Your task to perform on an android device: Empty the shopping cart on amazon.com. Search for "razer blade" on amazon.com, select the first entry, add it to the cart, then select checkout. Image 0: 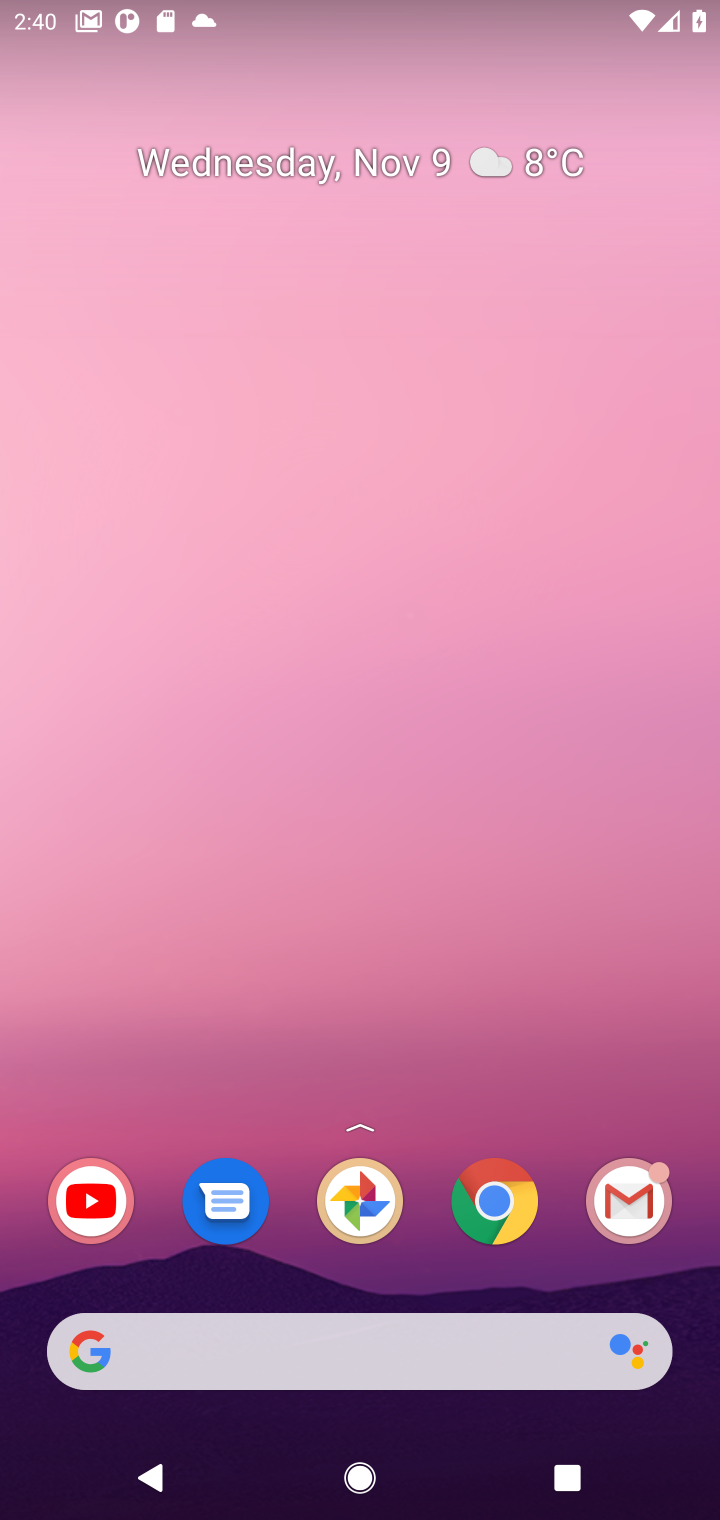
Step 0: click (312, 1344)
Your task to perform on an android device: Empty the shopping cart on amazon.com. Search for "razer blade" on amazon.com, select the first entry, add it to the cart, then select checkout. Image 1: 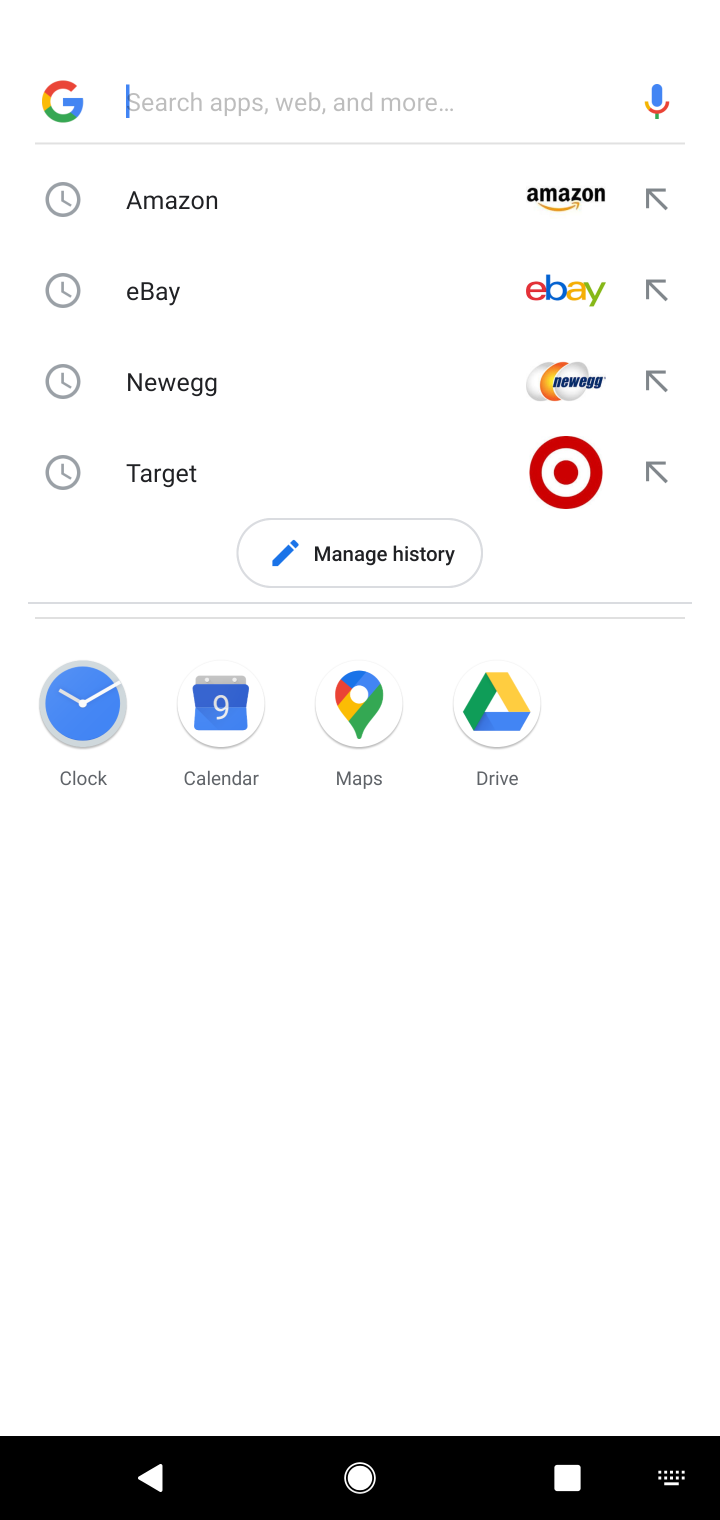
Step 1: type "amazon.com"
Your task to perform on an android device: Empty the shopping cart on amazon.com. Search for "razer blade" on amazon.com, select the first entry, add it to the cart, then select checkout. Image 2: 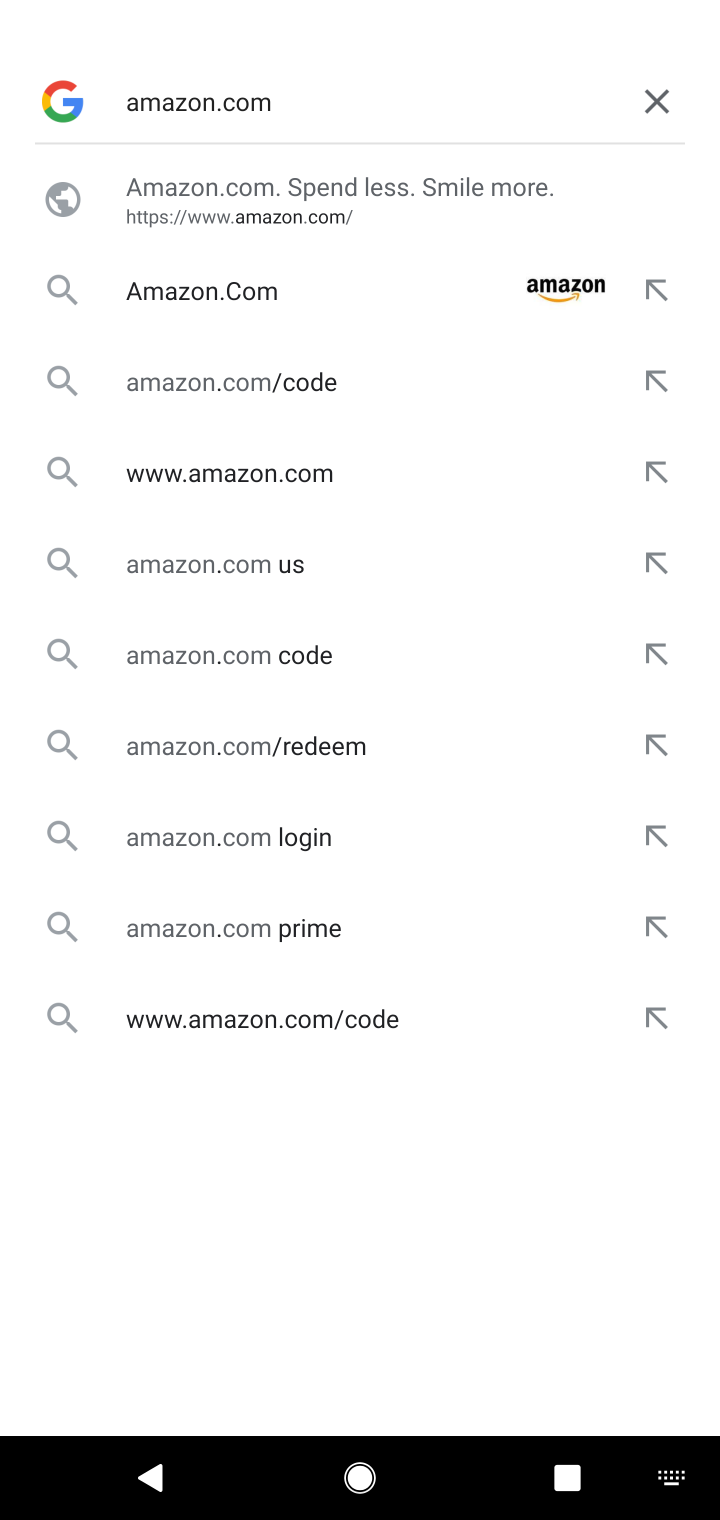
Step 2: click (316, 297)
Your task to perform on an android device: Empty the shopping cart on amazon.com. Search for "razer blade" on amazon.com, select the first entry, add it to the cart, then select checkout. Image 3: 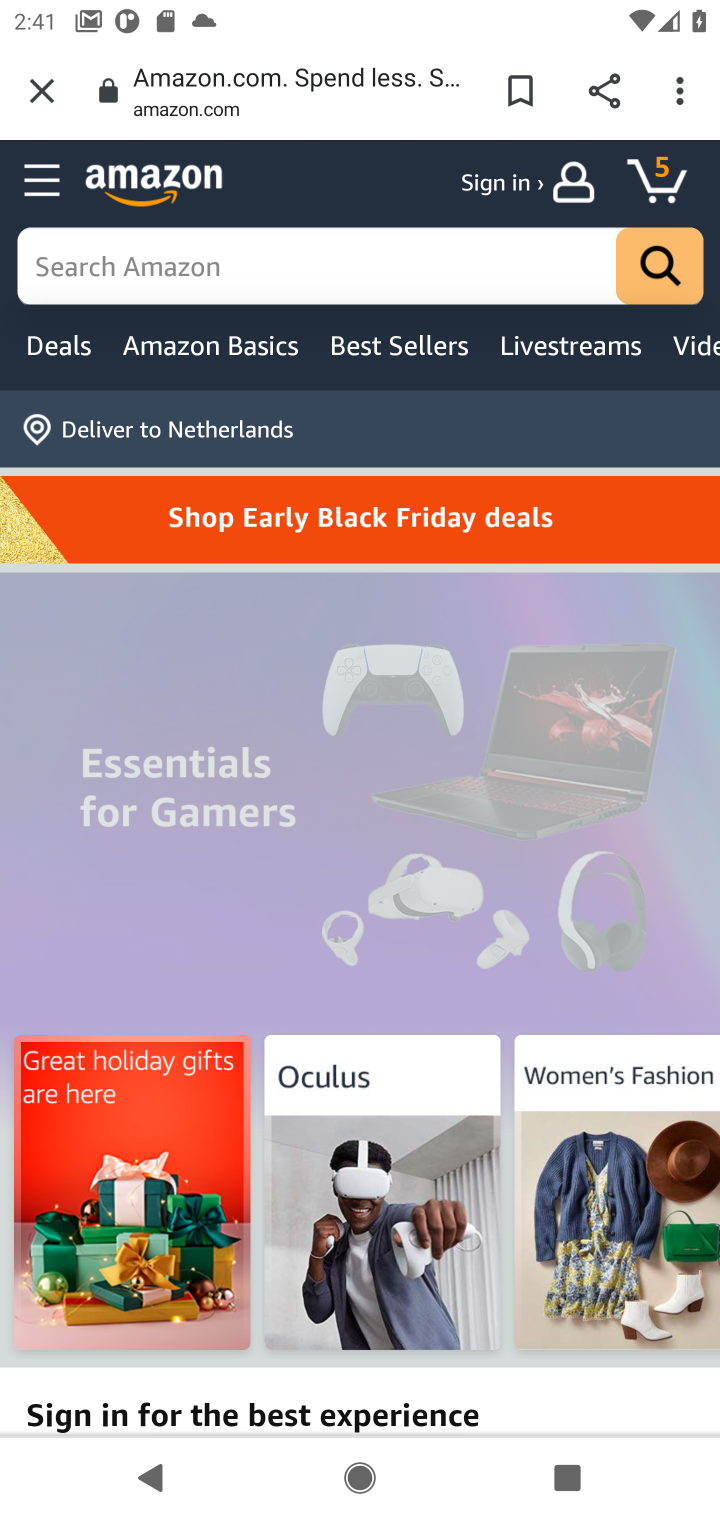
Step 3: click (248, 269)
Your task to perform on an android device: Empty the shopping cart on amazon.com. Search for "razer blade" on amazon.com, select the first entry, add it to the cart, then select checkout. Image 4: 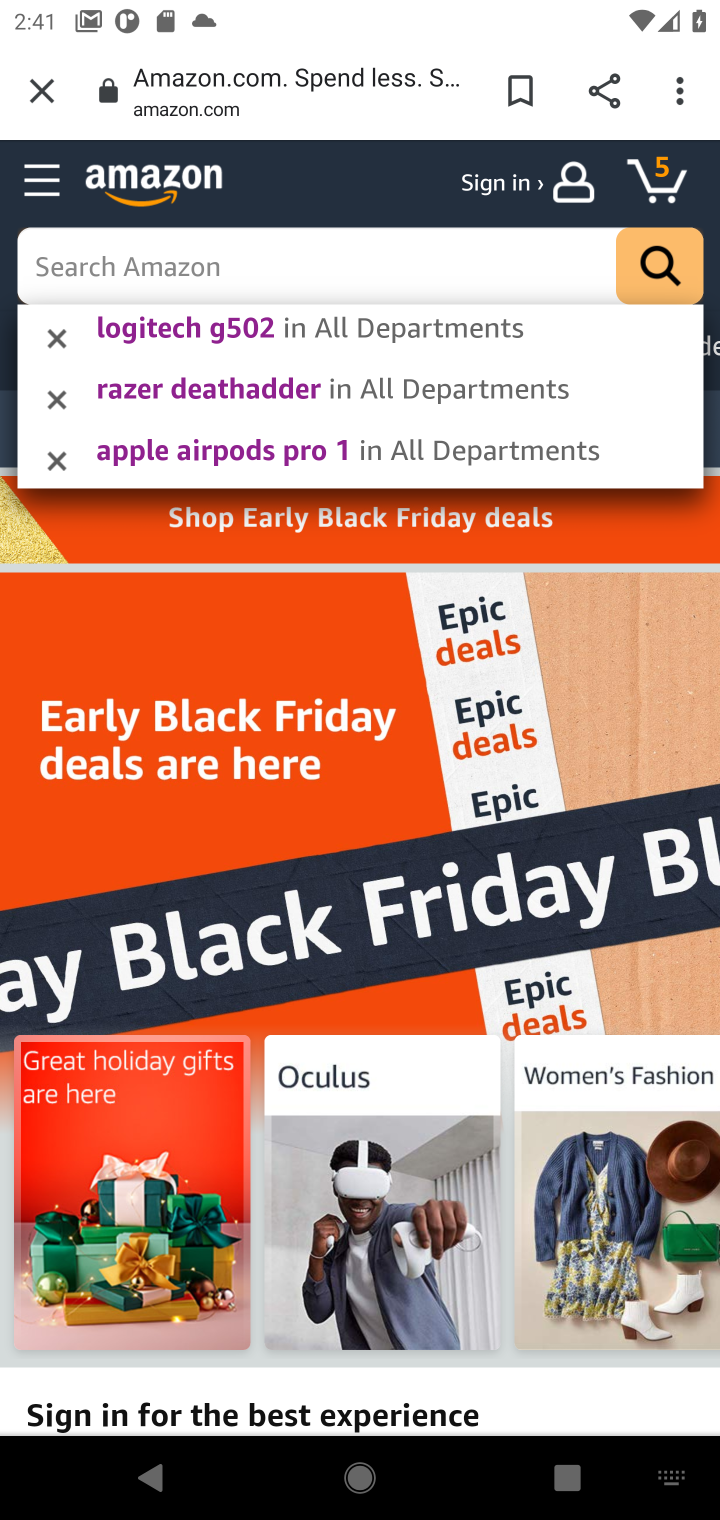
Step 4: type "razer blade"
Your task to perform on an android device: Empty the shopping cart on amazon.com. Search for "razer blade" on amazon.com, select the first entry, add it to the cart, then select checkout. Image 5: 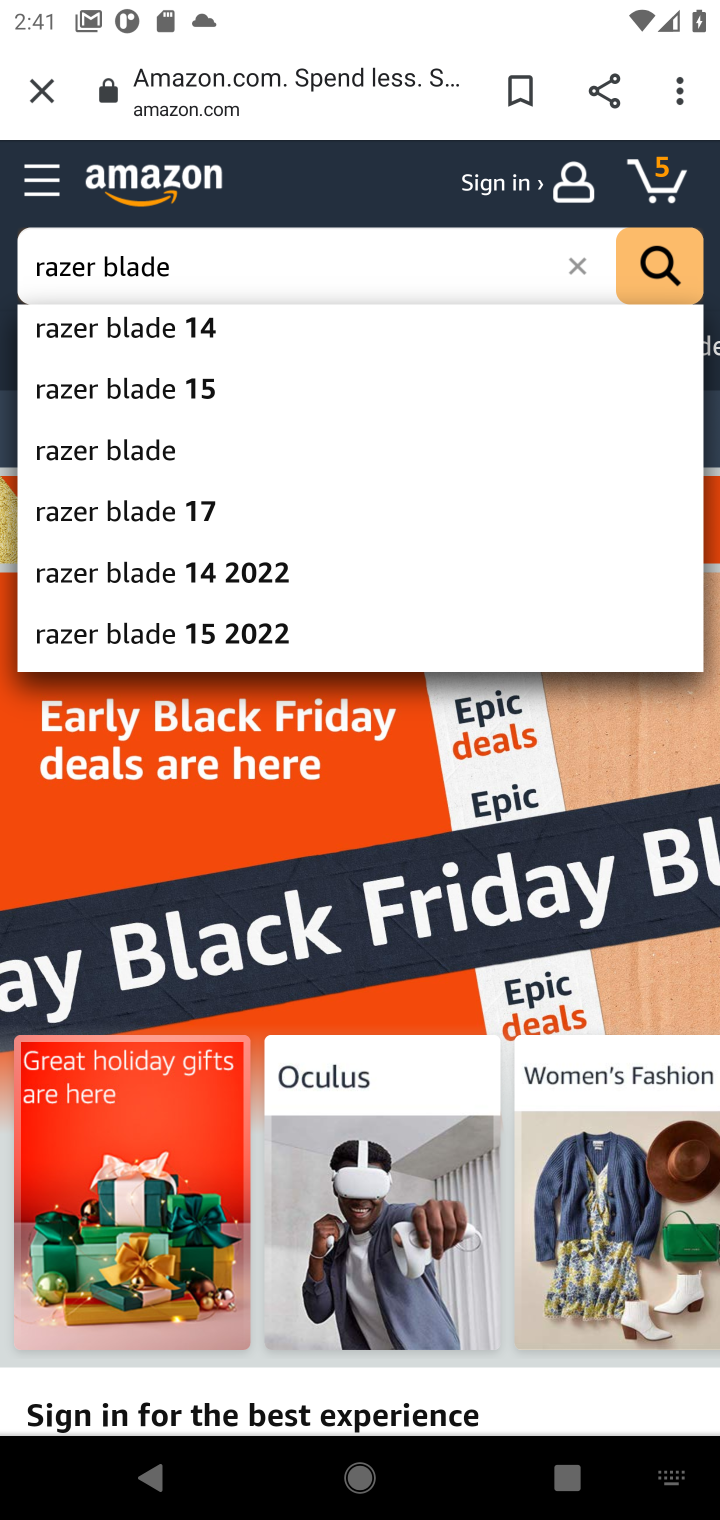
Step 5: click (114, 445)
Your task to perform on an android device: Empty the shopping cart on amazon.com. Search for "razer blade" on amazon.com, select the first entry, add it to the cart, then select checkout. Image 6: 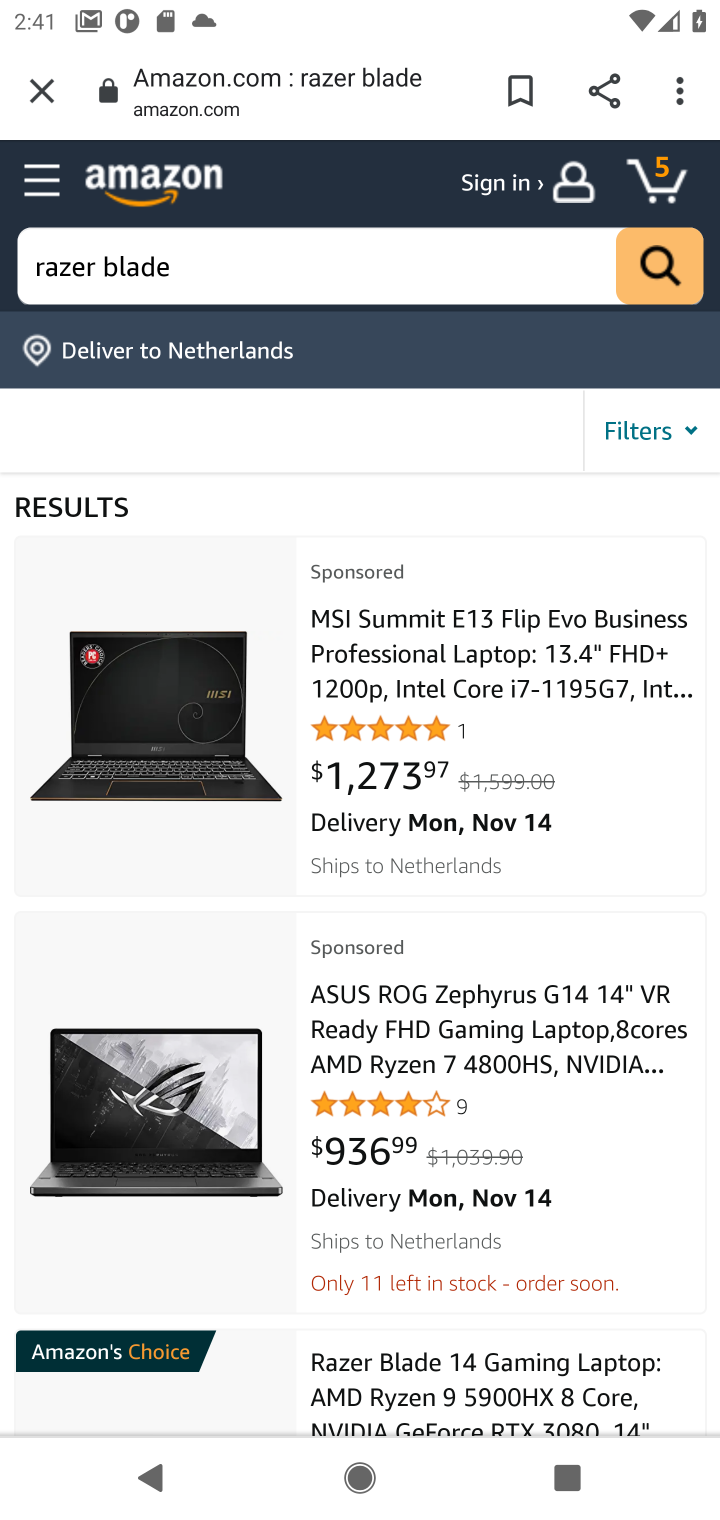
Step 6: click (357, 629)
Your task to perform on an android device: Empty the shopping cart on amazon.com. Search for "razer blade" on amazon.com, select the first entry, add it to the cart, then select checkout. Image 7: 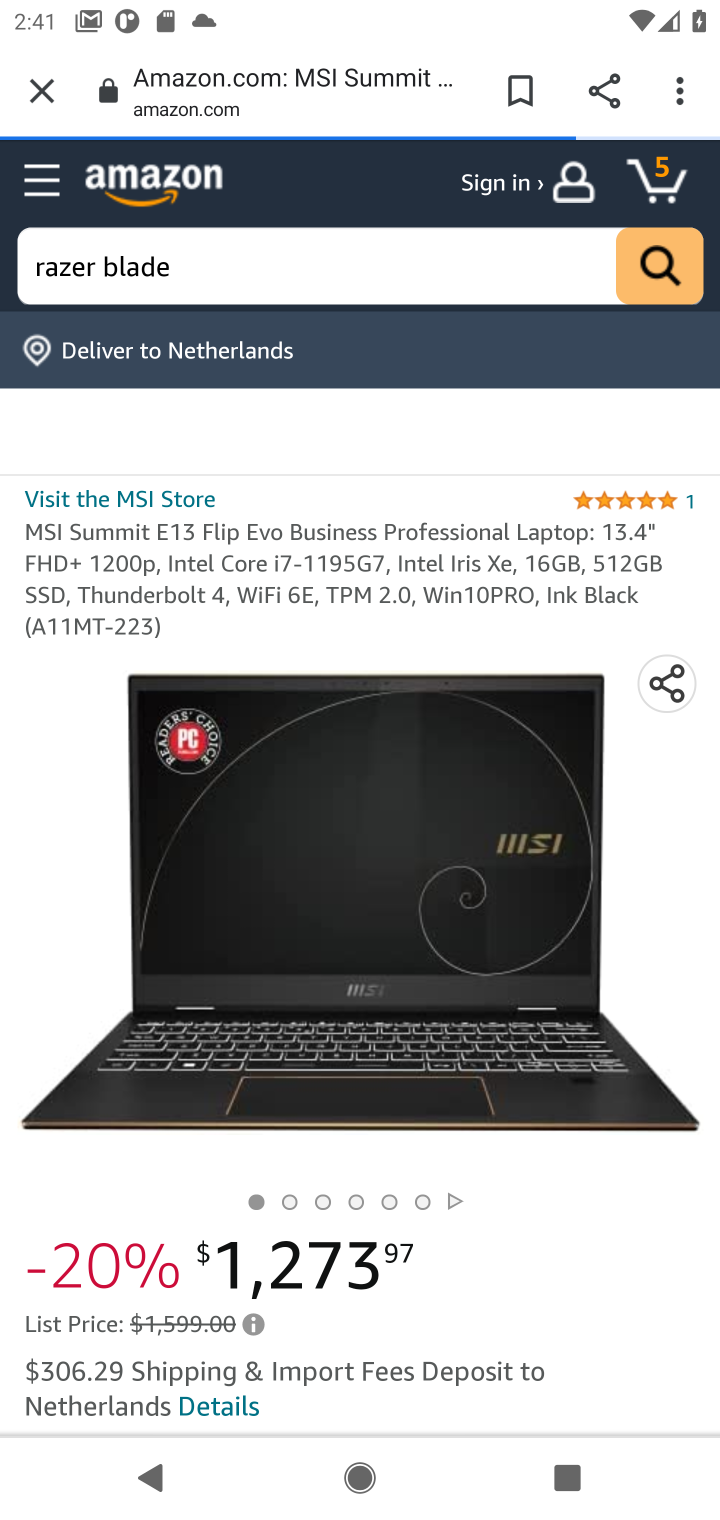
Step 7: drag from (470, 1125) to (459, 816)
Your task to perform on an android device: Empty the shopping cart on amazon.com. Search for "razer blade" on amazon.com, select the first entry, add it to the cart, then select checkout. Image 8: 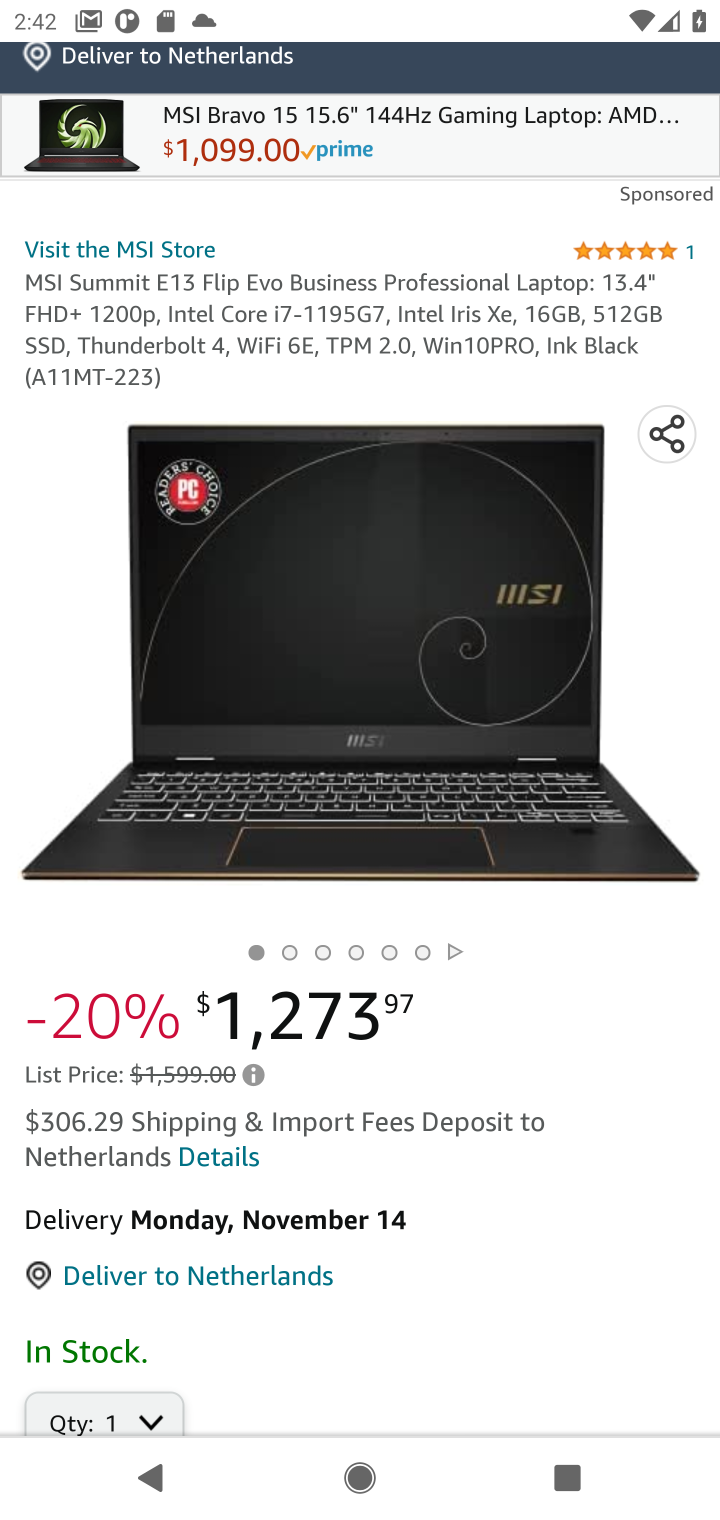
Step 8: drag from (443, 1000) to (443, 743)
Your task to perform on an android device: Empty the shopping cart on amazon.com. Search for "razer blade" on amazon.com, select the first entry, add it to the cart, then select checkout. Image 9: 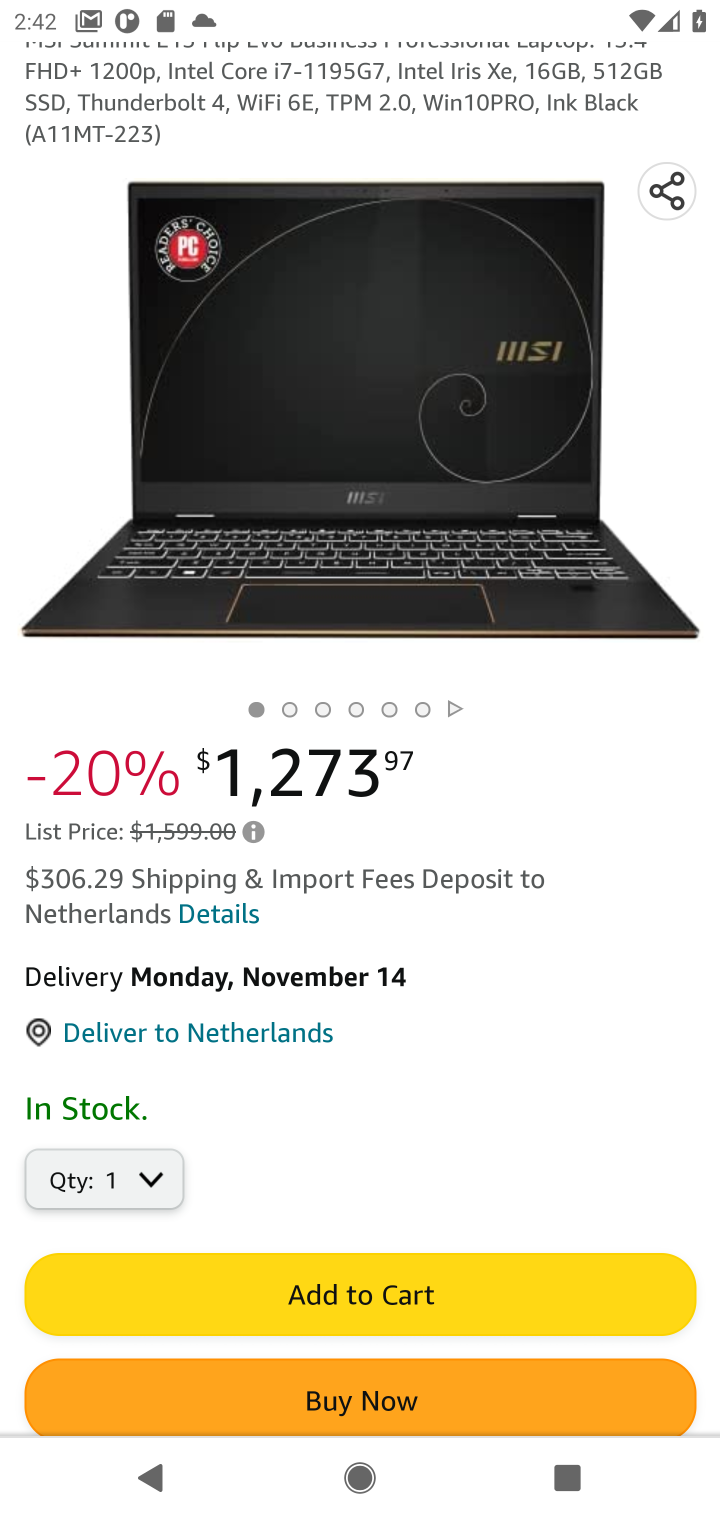
Step 9: click (372, 1295)
Your task to perform on an android device: Empty the shopping cart on amazon.com. Search for "razer blade" on amazon.com, select the first entry, add it to the cart, then select checkout. Image 10: 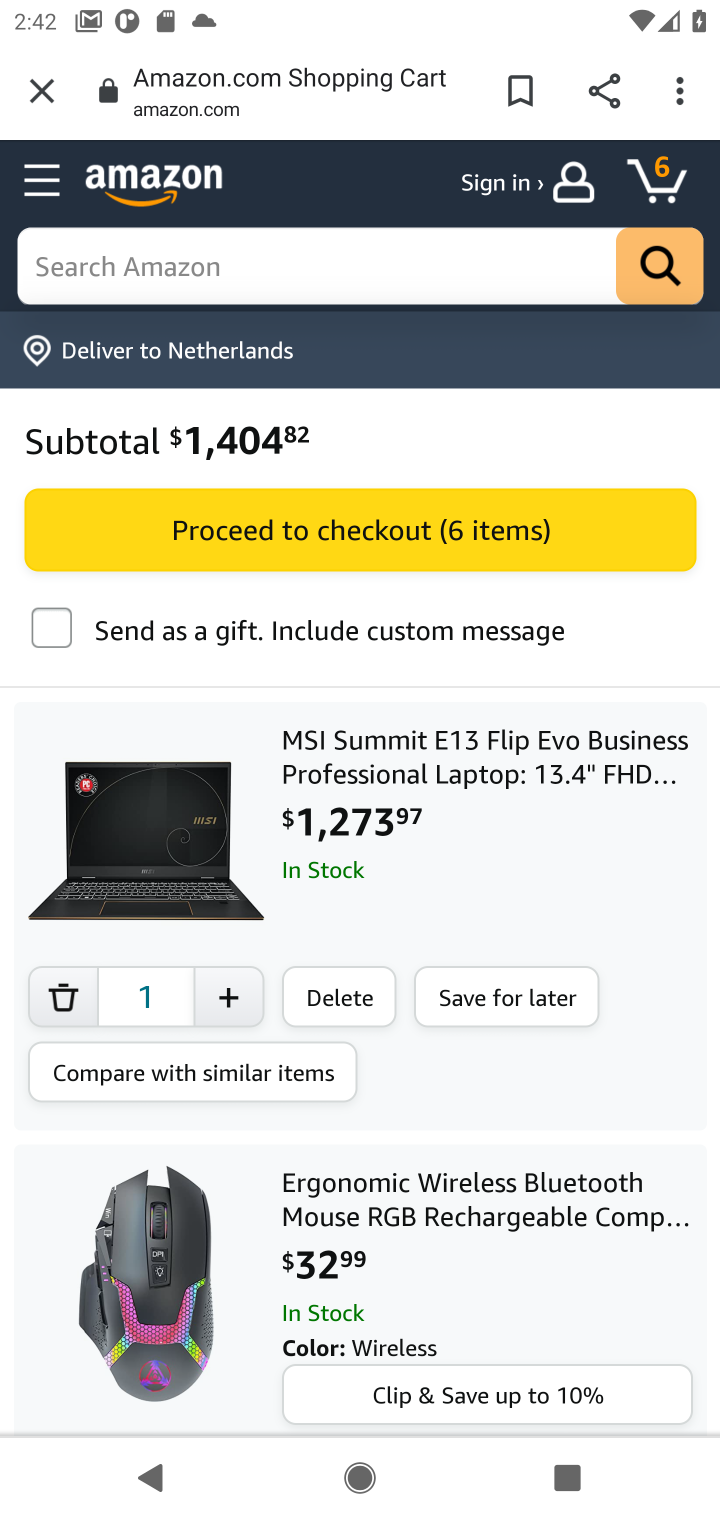
Step 10: click (378, 518)
Your task to perform on an android device: Empty the shopping cart on amazon.com. Search for "razer blade" on amazon.com, select the first entry, add it to the cart, then select checkout. Image 11: 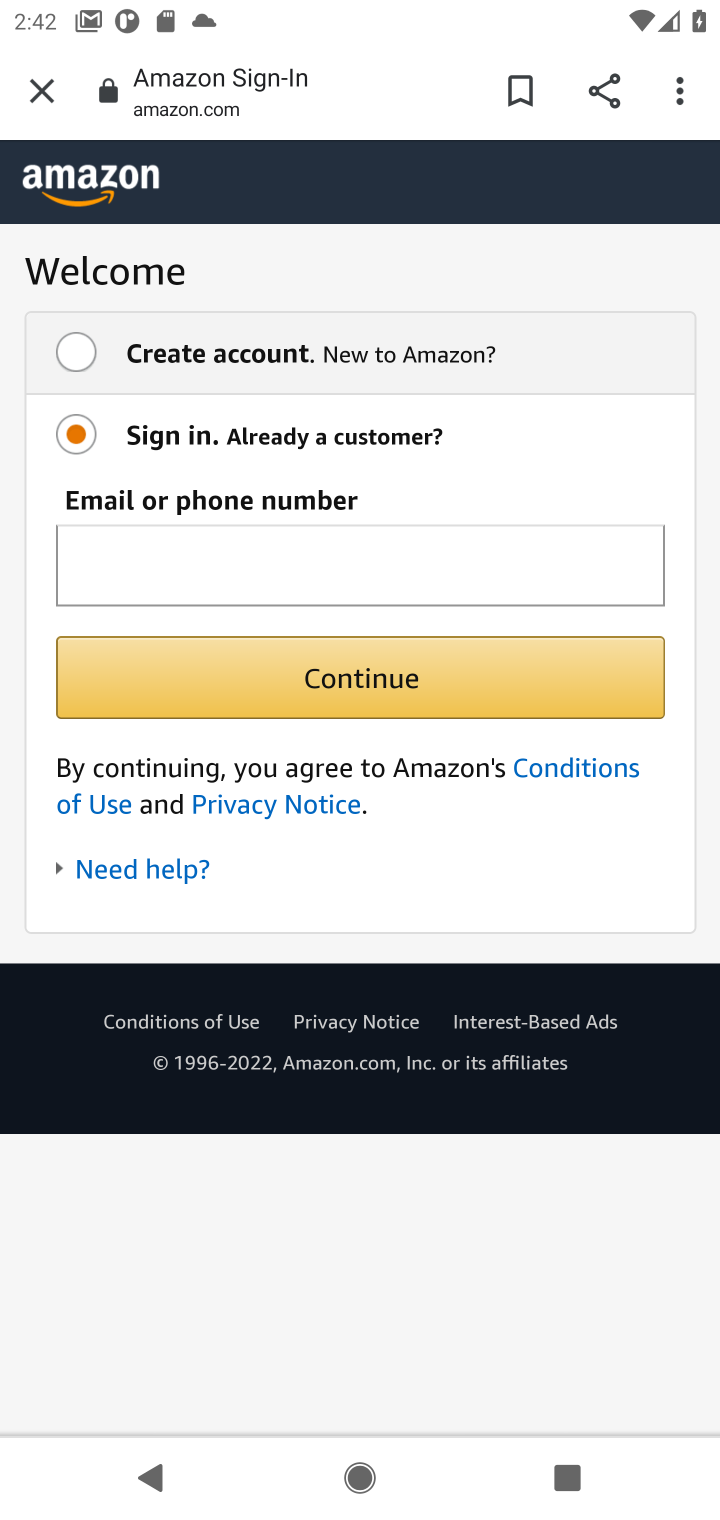
Step 11: task complete